Your task to perform on an android device: Do I have any events today? Image 0: 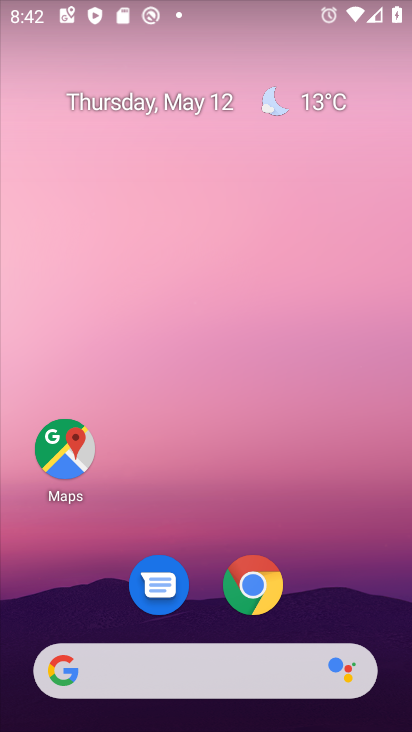
Step 0: drag from (230, 476) to (279, 55)
Your task to perform on an android device: Do I have any events today? Image 1: 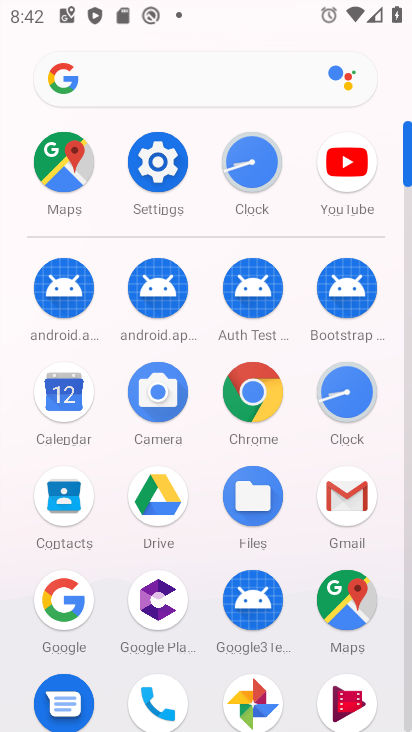
Step 1: click (67, 379)
Your task to perform on an android device: Do I have any events today? Image 2: 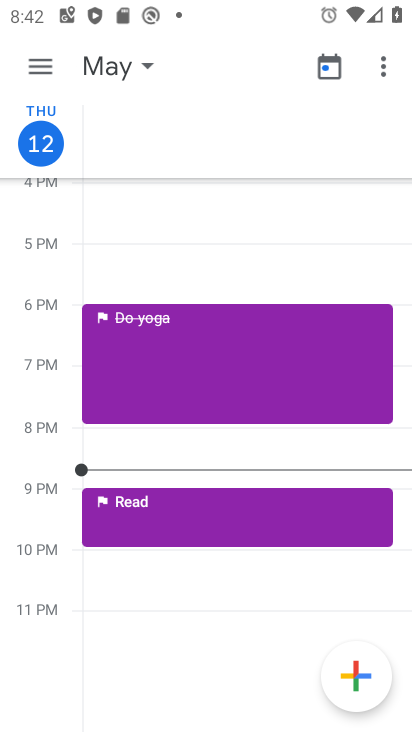
Step 2: click (42, 63)
Your task to perform on an android device: Do I have any events today? Image 3: 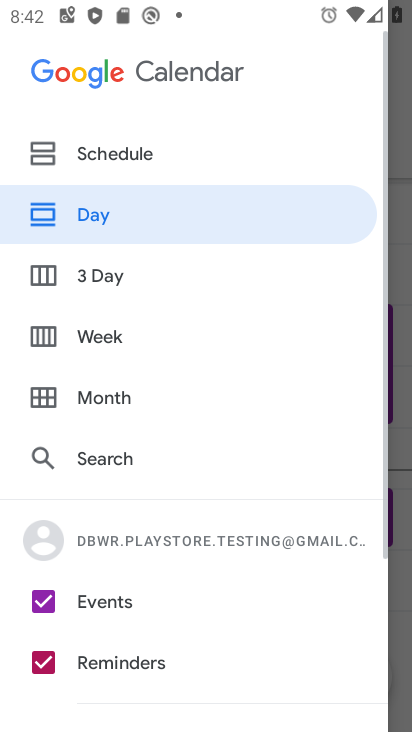
Step 3: click (92, 144)
Your task to perform on an android device: Do I have any events today? Image 4: 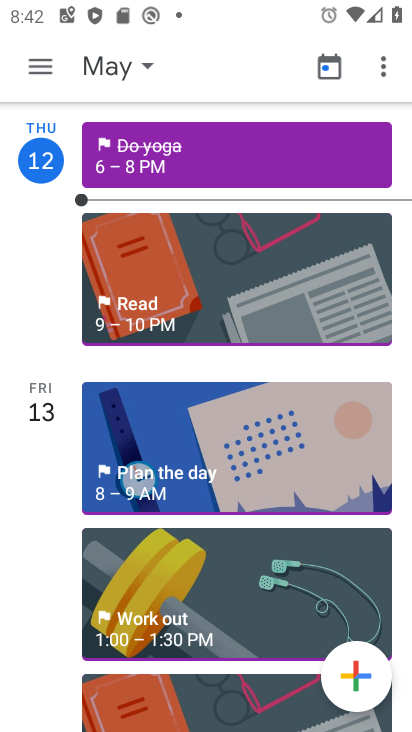
Step 4: task complete